Your task to perform on an android device: open the mobile data screen to see how much data has been used Image 0: 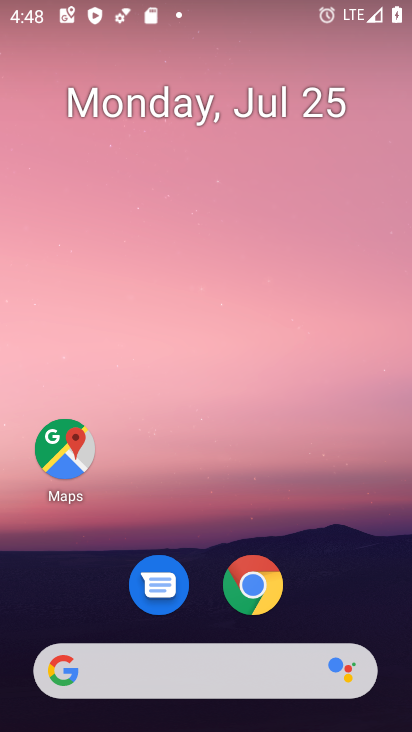
Step 0: drag from (225, 511) to (228, 1)
Your task to perform on an android device: open the mobile data screen to see how much data has been used Image 1: 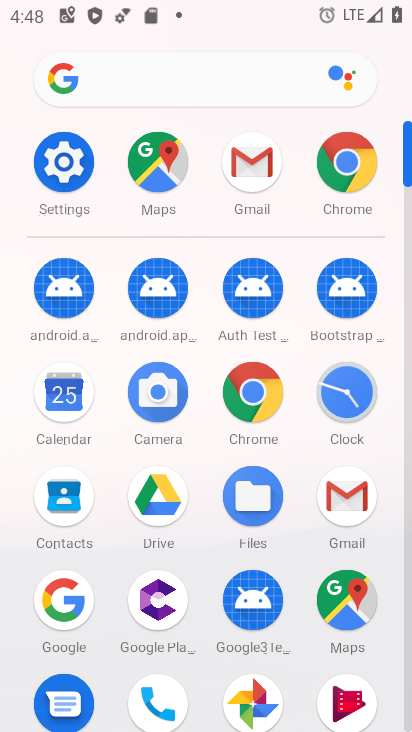
Step 1: click (73, 167)
Your task to perform on an android device: open the mobile data screen to see how much data has been used Image 2: 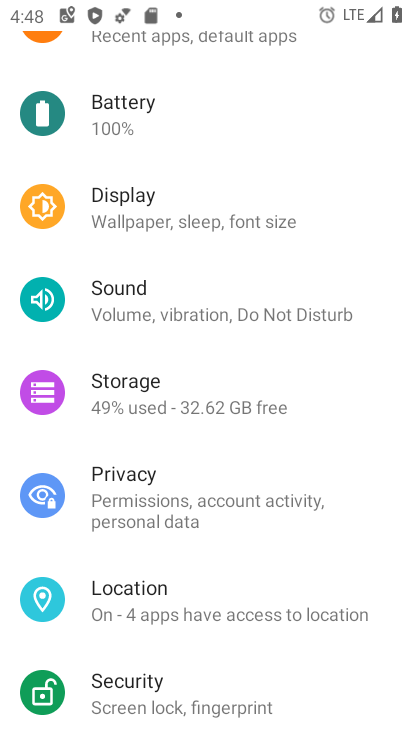
Step 2: drag from (224, 168) to (182, 531)
Your task to perform on an android device: open the mobile data screen to see how much data has been used Image 3: 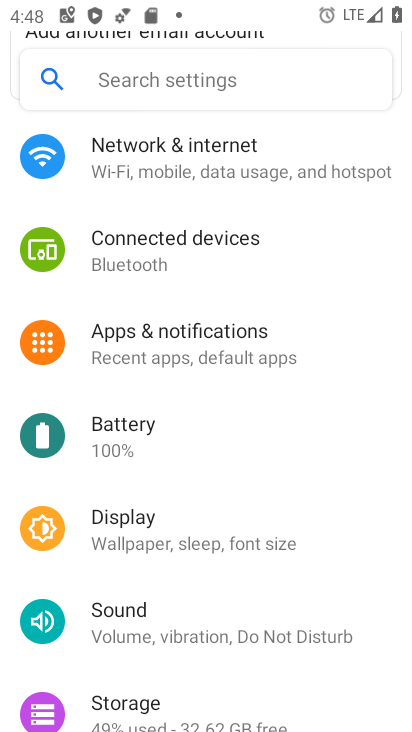
Step 3: click (245, 163)
Your task to perform on an android device: open the mobile data screen to see how much data has been used Image 4: 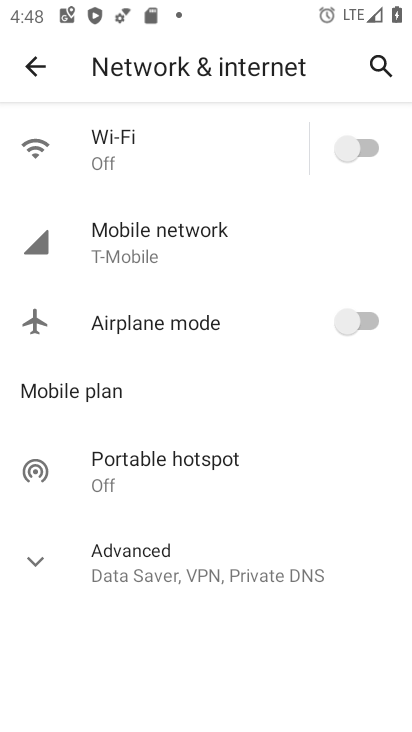
Step 4: click (229, 231)
Your task to perform on an android device: open the mobile data screen to see how much data has been used Image 5: 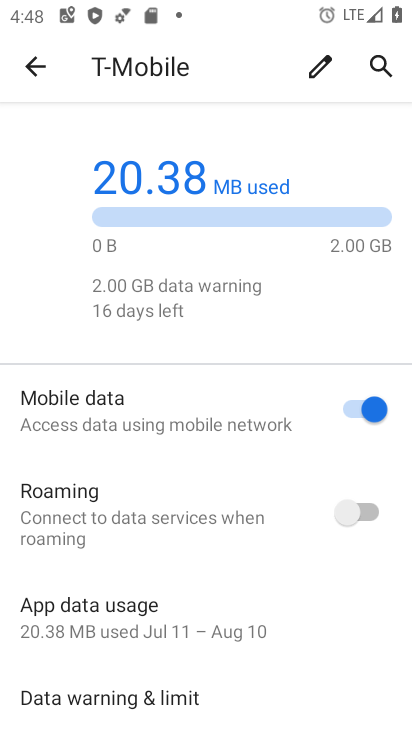
Step 5: task complete